Your task to perform on an android device: refresh tabs in the chrome app Image 0: 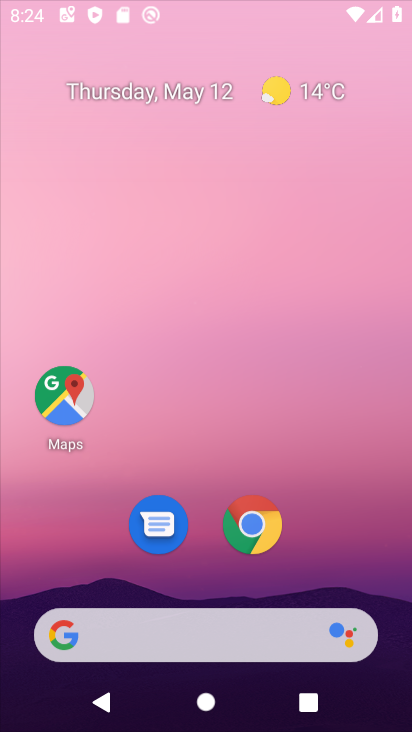
Step 0: click (326, 73)
Your task to perform on an android device: refresh tabs in the chrome app Image 1: 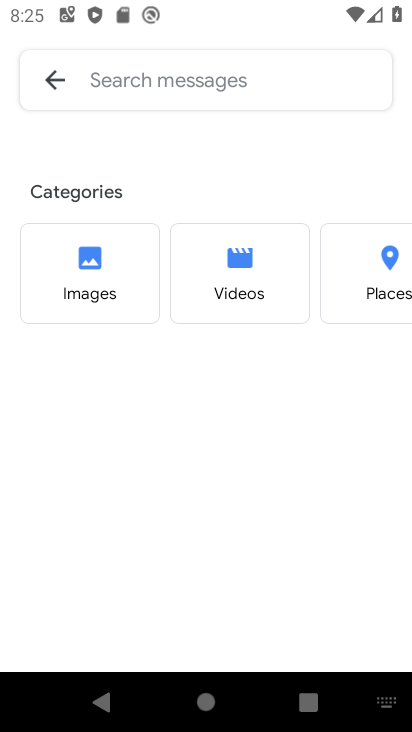
Step 1: press home button
Your task to perform on an android device: refresh tabs in the chrome app Image 2: 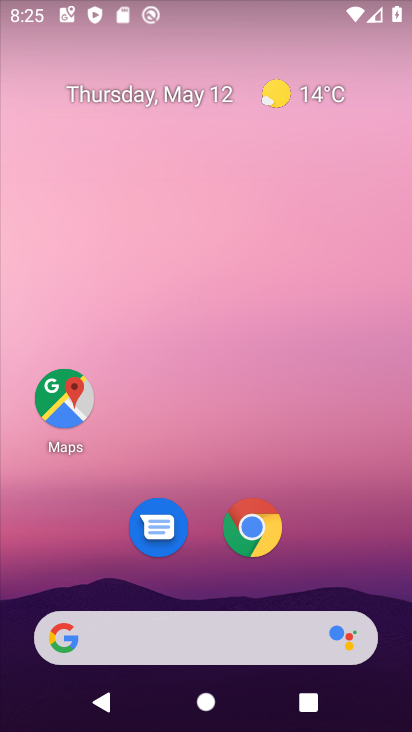
Step 2: click (373, 500)
Your task to perform on an android device: refresh tabs in the chrome app Image 3: 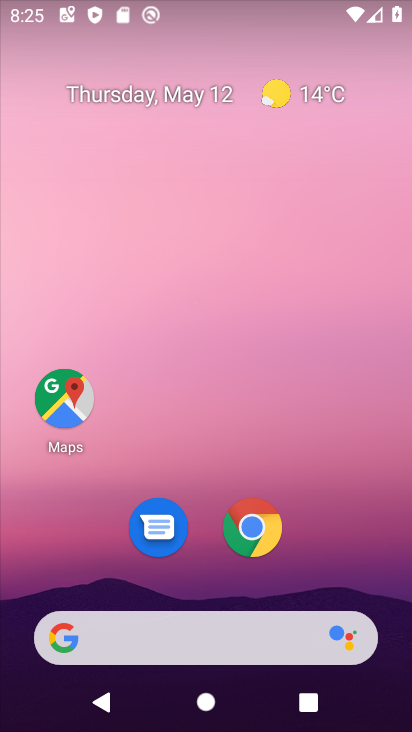
Step 3: click (272, 529)
Your task to perform on an android device: refresh tabs in the chrome app Image 4: 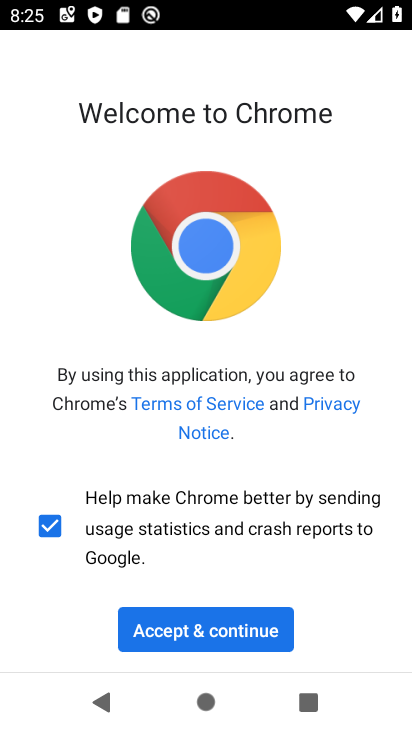
Step 4: click (155, 637)
Your task to perform on an android device: refresh tabs in the chrome app Image 5: 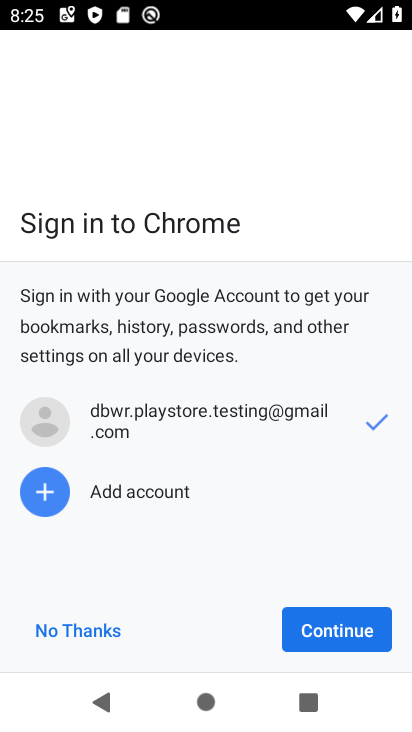
Step 5: click (310, 626)
Your task to perform on an android device: refresh tabs in the chrome app Image 6: 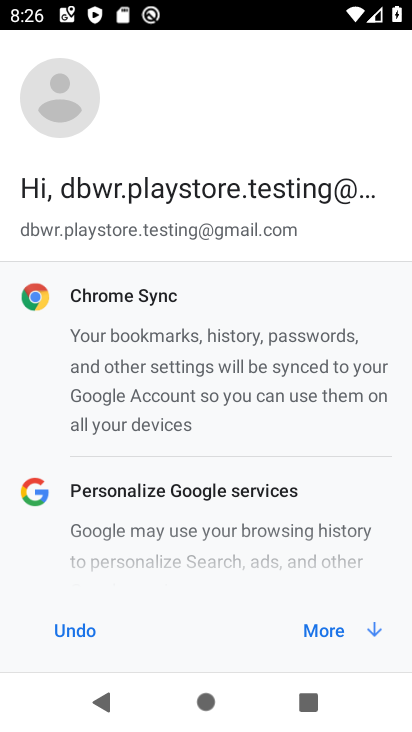
Step 6: click (310, 626)
Your task to perform on an android device: refresh tabs in the chrome app Image 7: 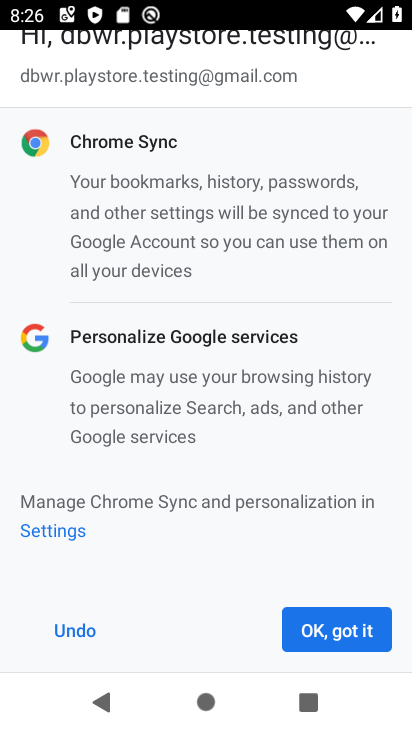
Step 7: click (310, 626)
Your task to perform on an android device: refresh tabs in the chrome app Image 8: 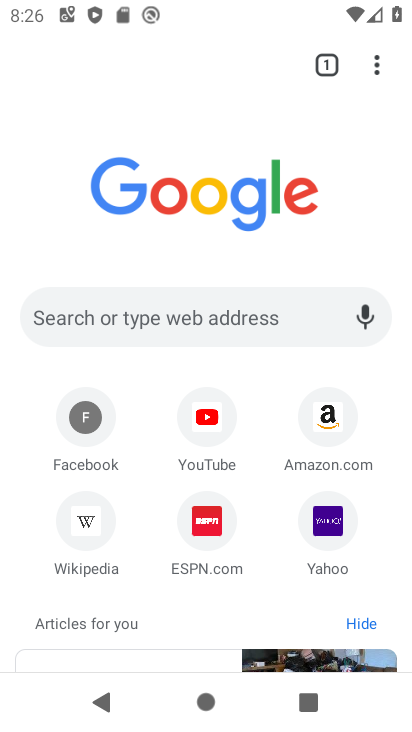
Step 8: click (375, 78)
Your task to perform on an android device: refresh tabs in the chrome app Image 9: 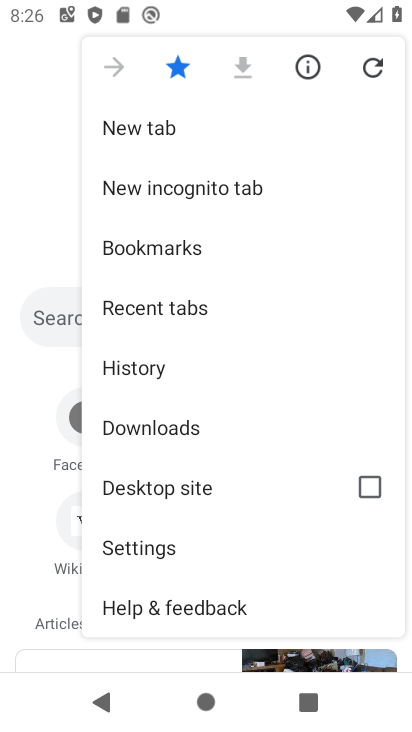
Step 9: click (375, 78)
Your task to perform on an android device: refresh tabs in the chrome app Image 10: 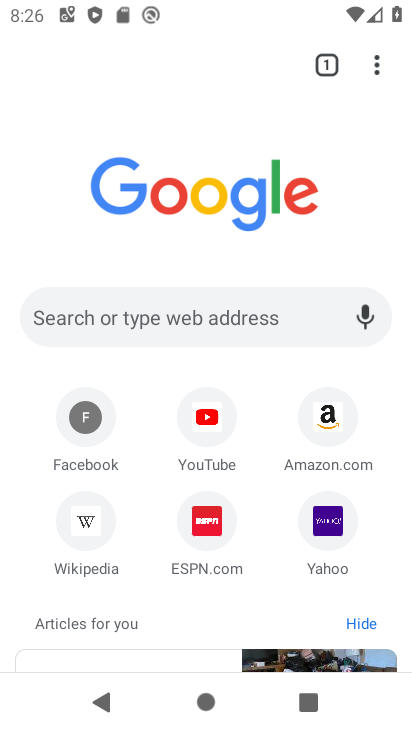
Step 10: task complete